Your task to perform on an android device: turn off picture-in-picture Image 0: 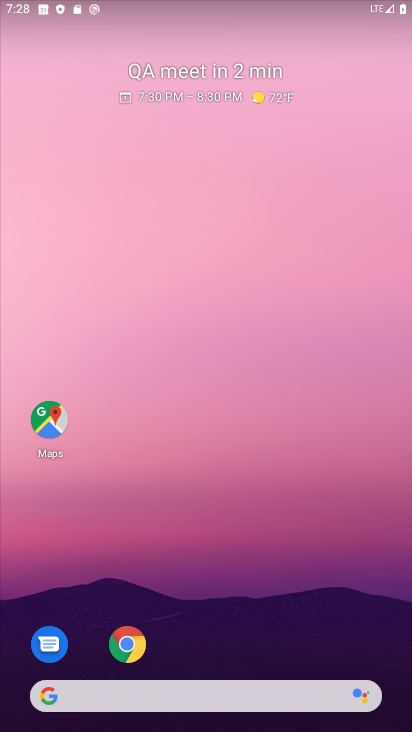
Step 0: drag from (235, 721) to (193, 267)
Your task to perform on an android device: turn off picture-in-picture Image 1: 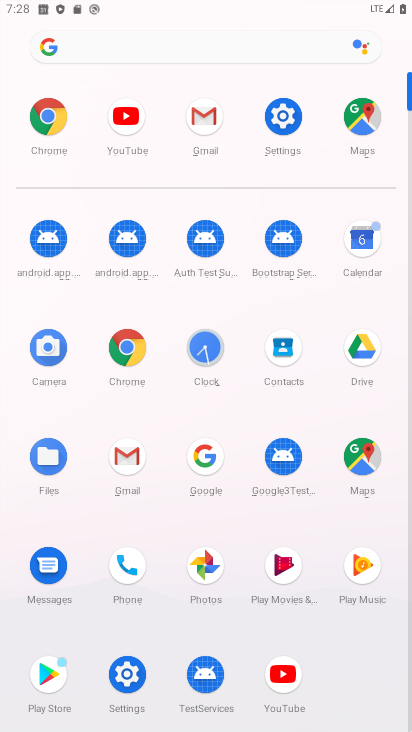
Step 1: click (118, 127)
Your task to perform on an android device: turn off picture-in-picture Image 2: 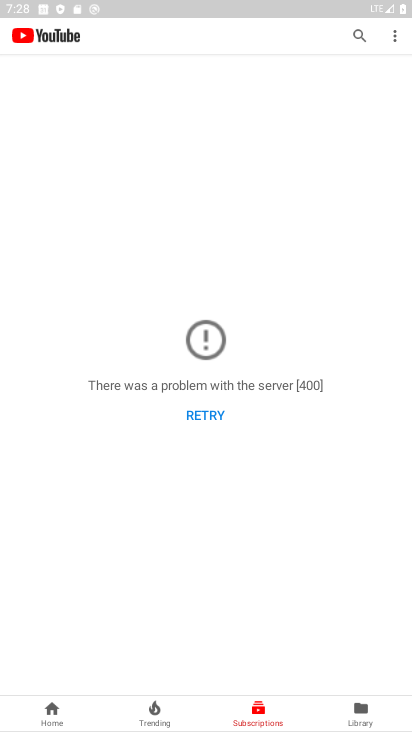
Step 2: click (389, 36)
Your task to perform on an android device: turn off picture-in-picture Image 3: 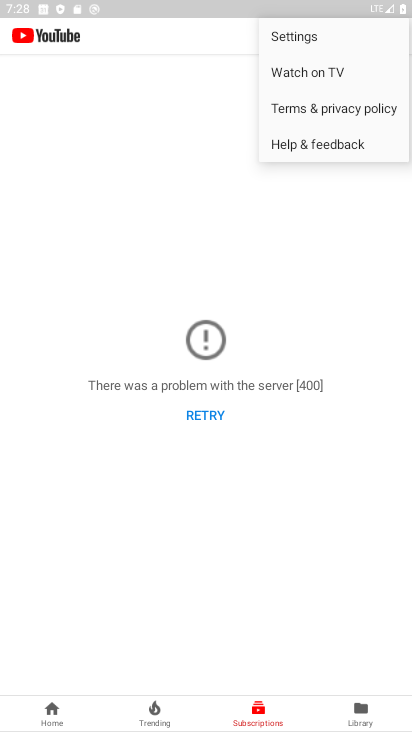
Step 3: click (277, 44)
Your task to perform on an android device: turn off picture-in-picture Image 4: 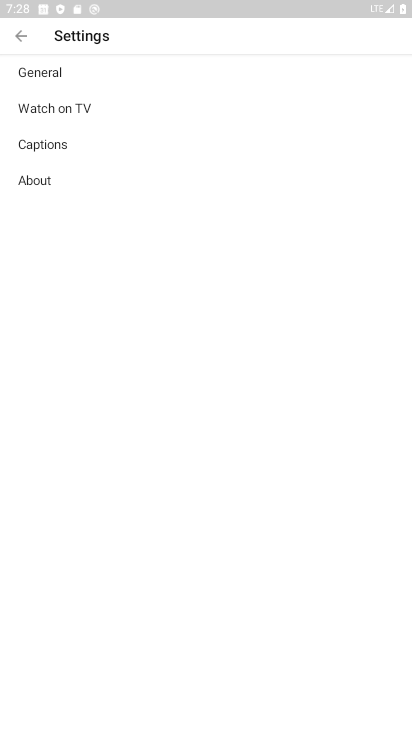
Step 4: click (62, 70)
Your task to perform on an android device: turn off picture-in-picture Image 5: 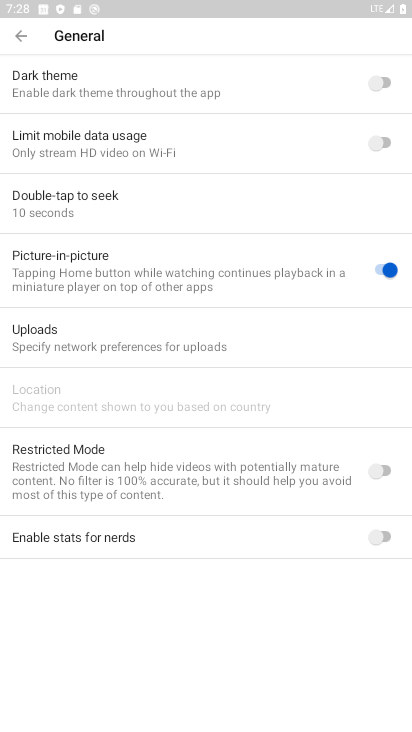
Step 5: click (372, 268)
Your task to perform on an android device: turn off picture-in-picture Image 6: 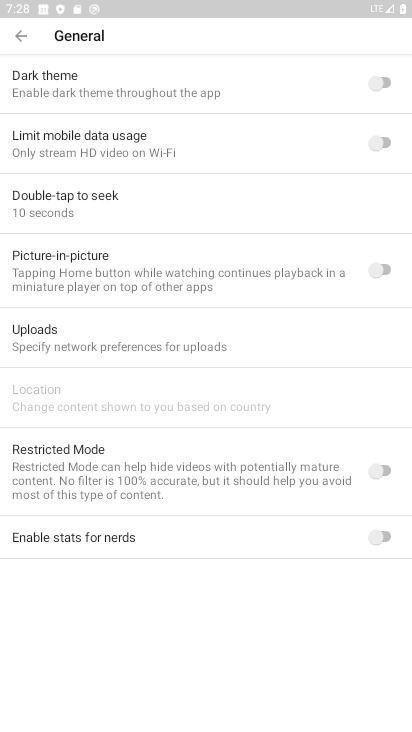
Step 6: task complete